Your task to perform on an android device: Open notification settings Image 0: 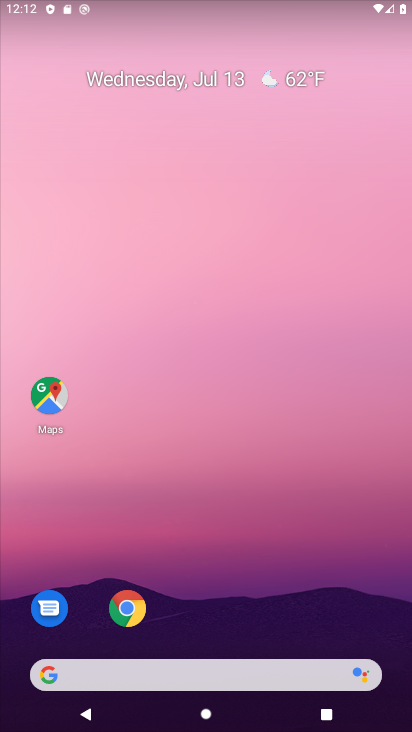
Step 0: drag from (333, 615) to (340, 86)
Your task to perform on an android device: Open notification settings Image 1: 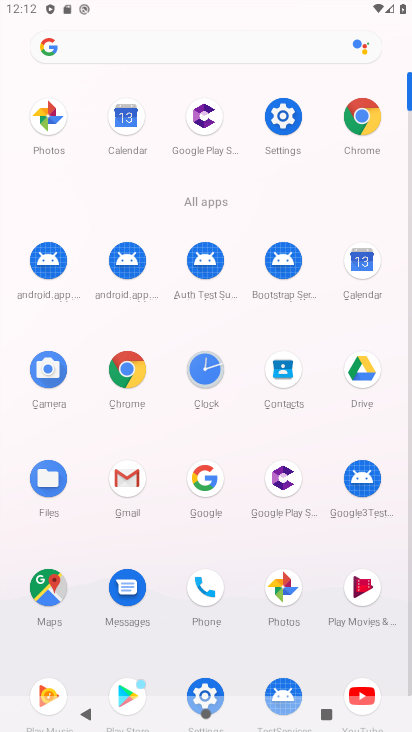
Step 1: click (281, 124)
Your task to perform on an android device: Open notification settings Image 2: 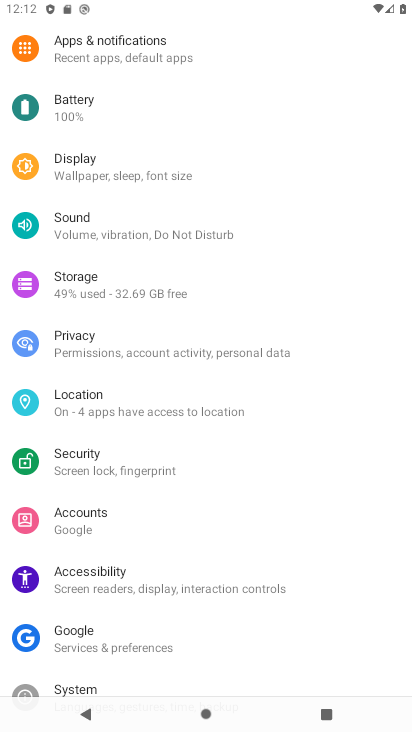
Step 2: drag from (344, 524) to (343, 396)
Your task to perform on an android device: Open notification settings Image 3: 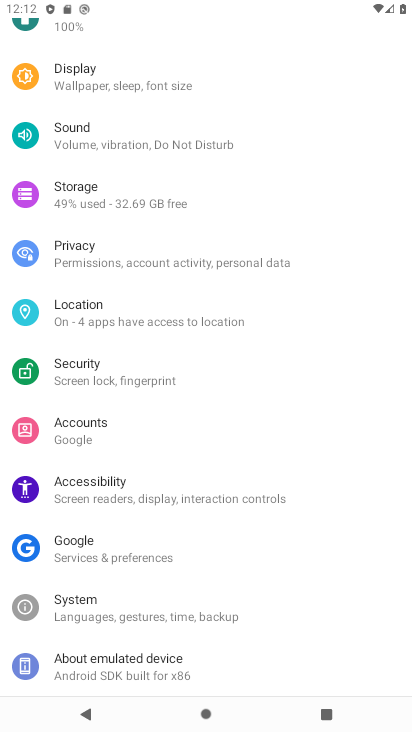
Step 3: drag from (345, 536) to (349, 394)
Your task to perform on an android device: Open notification settings Image 4: 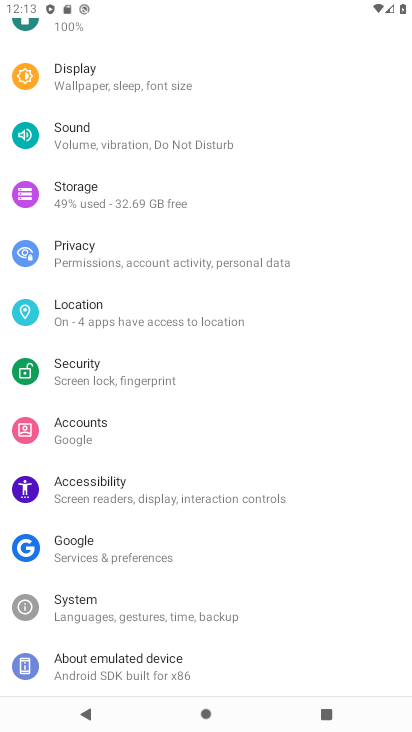
Step 4: drag from (337, 303) to (338, 411)
Your task to perform on an android device: Open notification settings Image 5: 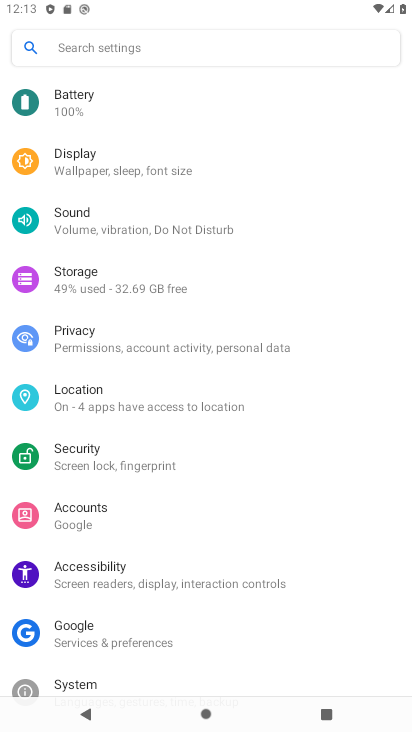
Step 5: drag from (337, 287) to (340, 383)
Your task to perform on an android device: Open notification settings Image 6: 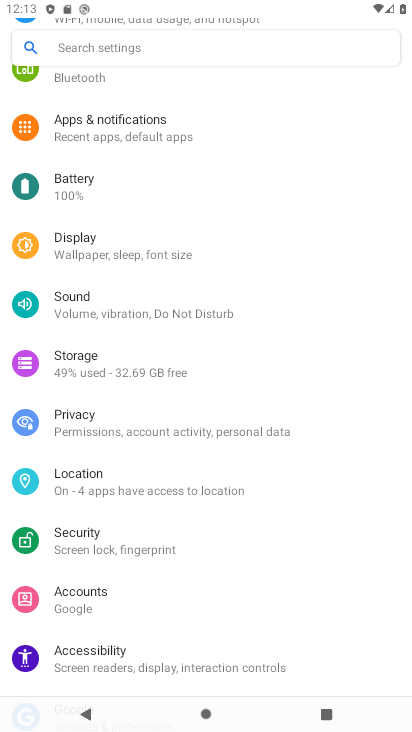
Step 6: drag from (341, 284) to (341, 385)
Your task to perform on an android device: Open notification settings Image 7: 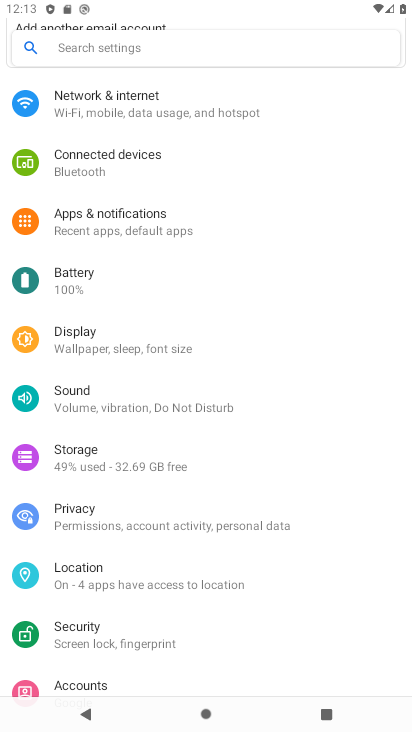
Step 7: drag from (329, 280) to (331, 389)
Your task to perform on an android device: Open notification settings Image 8: 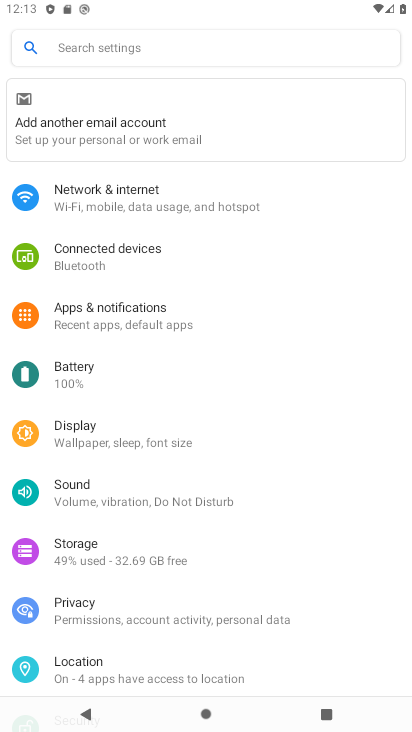
Step 8: drag from (330, 257) to (332, 409)
Your task to perform on an android device: Open notification settings Image 9: 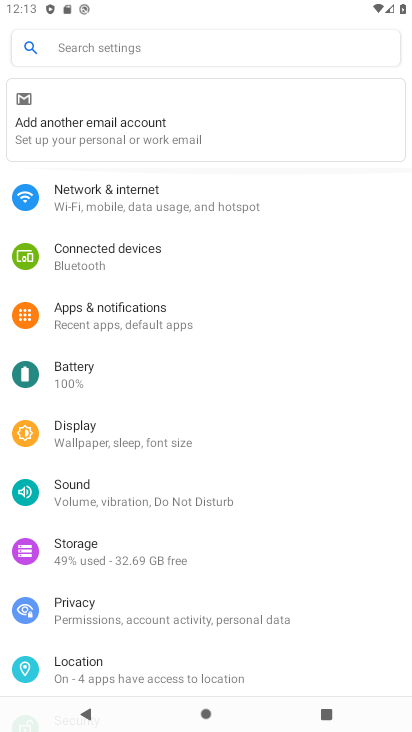
Step 9: click (215, 317)
Your task to perform on an android device: Open notification settings Image 10: 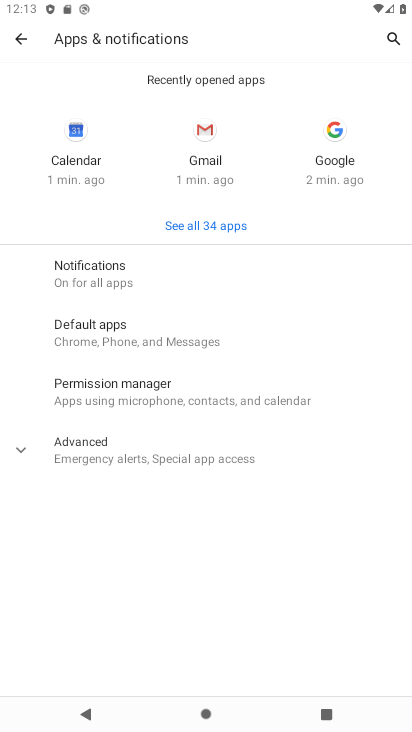
Step 10: click (133, 273)
Your task to perform on an android device: Open notification settings Image 11: 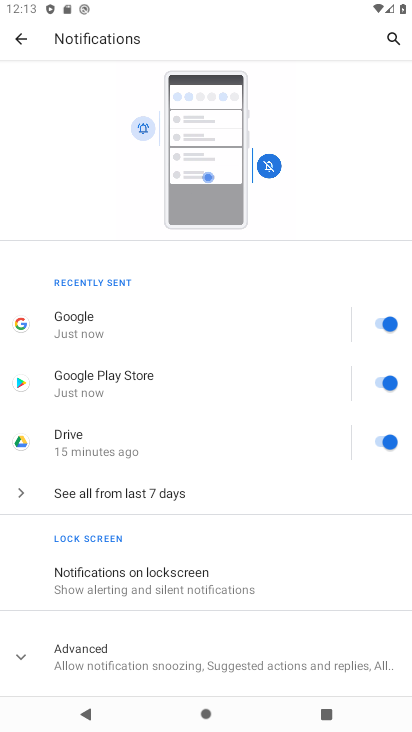
Step 11: task complete